Your task to perform on an android device: Open sound settings Image 0: 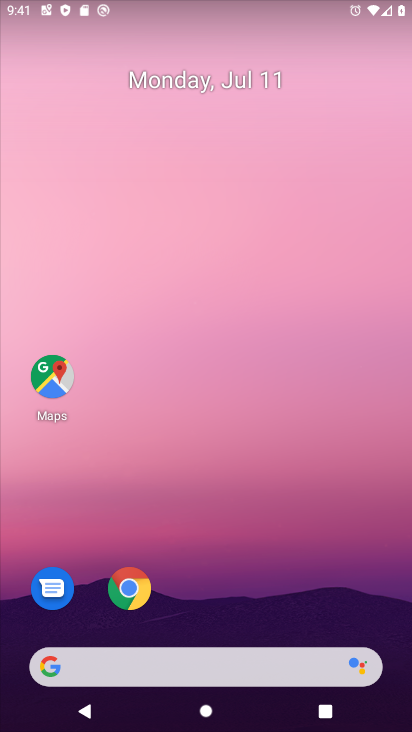
Step 0: drag from (211, 612) to (261, 67)
Your task to perform on an android device: Open sound settings Image 1: 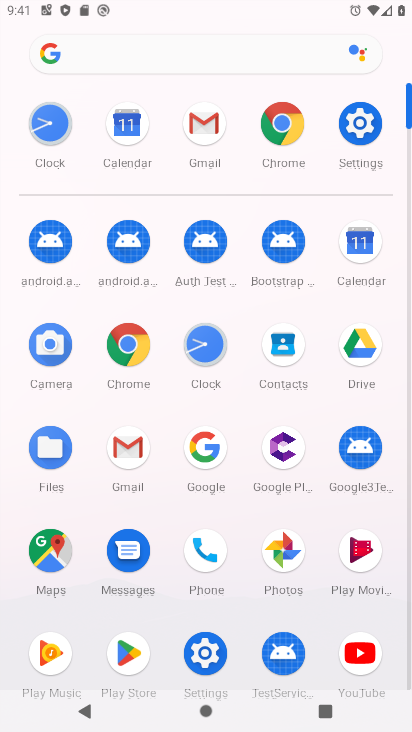
Step 1: click (364, 113)
Your task to perform on an android device: Open sound settings Image 2: 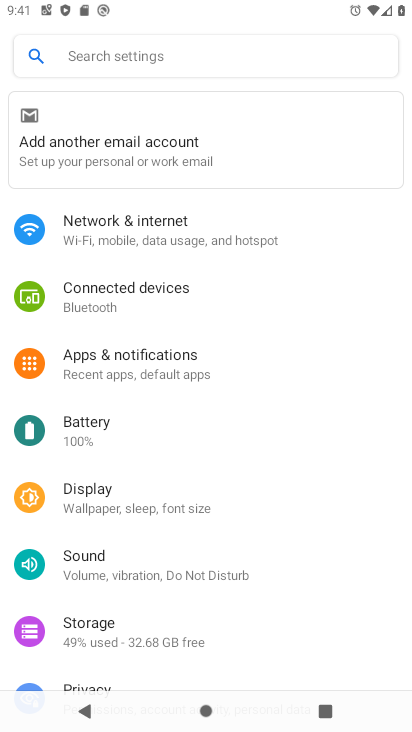
Step 2: click (96, 558)
Your task to perform on an android device: Open sound settings Image 3: 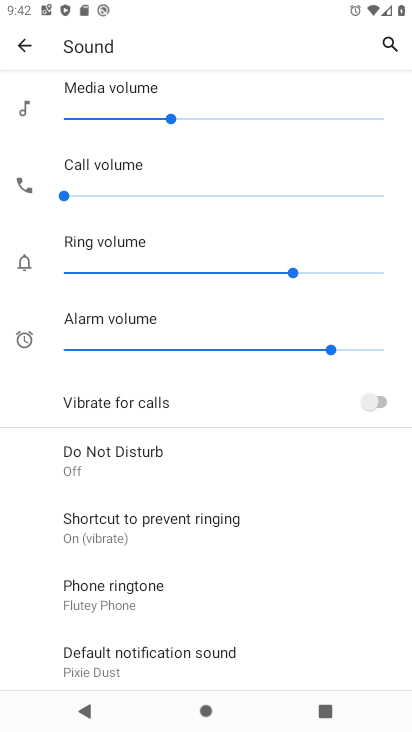
Step 3: task complete